Your task to perform on an android device: set the stopwatch Image 0: 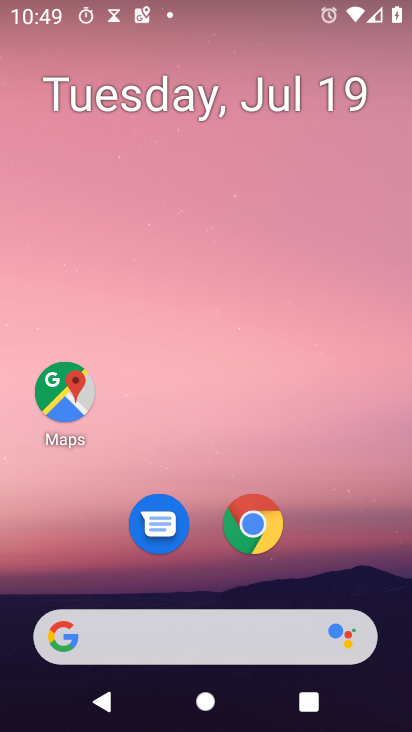
Step 0: drag from (241, 635) to (331, 104)
Your task to perform on an android device: set the stopwatch Image 1: 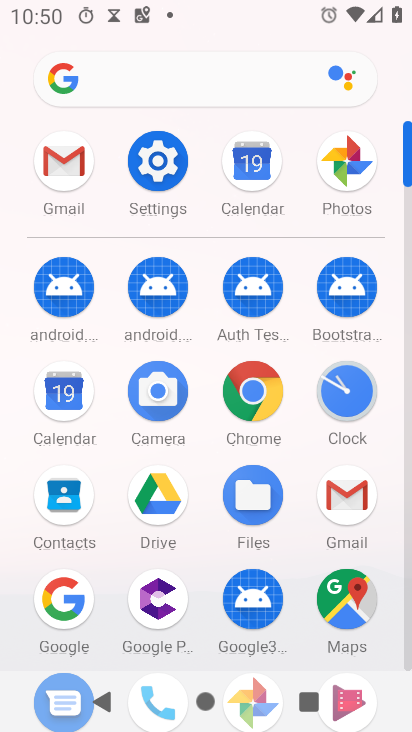
Step 1: click (344, 388)
Your task to perform on an android device: set the stopwatch Image 2: 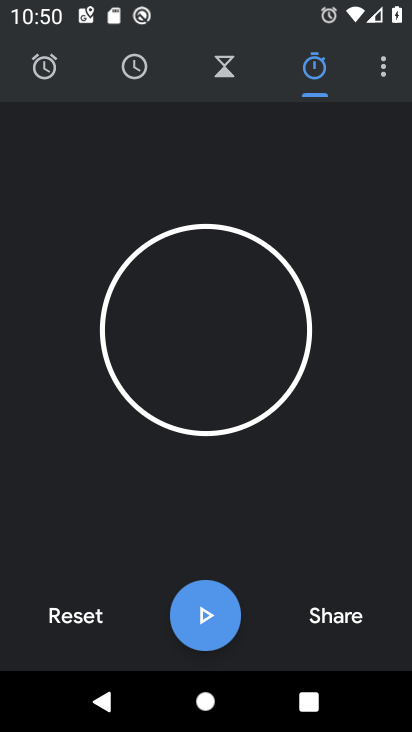
Step 2: click (81, 618)
Your task to perform on an android device: set the stopwatch Image 3: 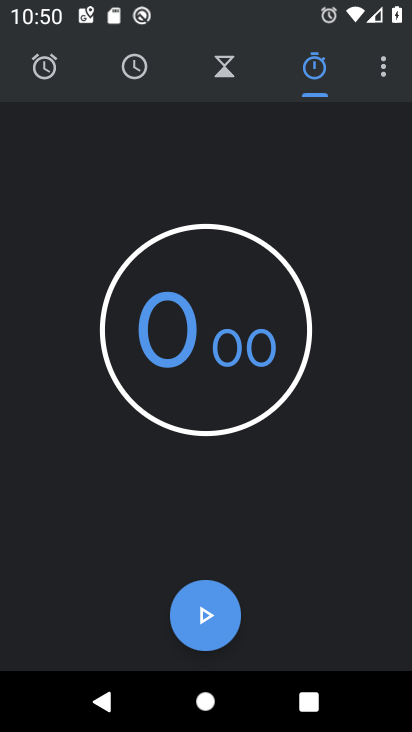
Step 3: click (191, 344)
Your task to perform on an android device: set the stopwatch Image 4: 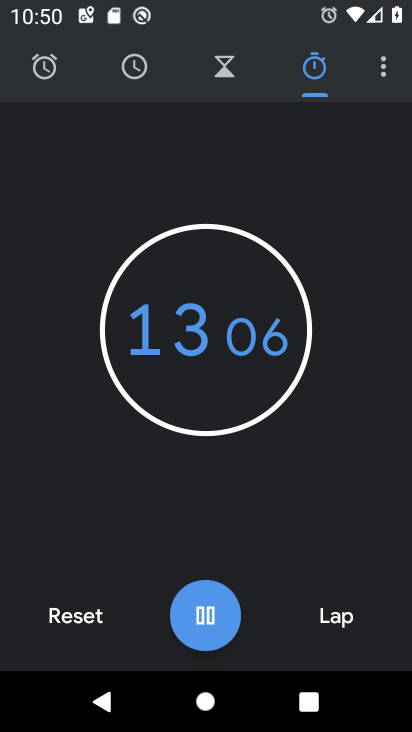
Step 4: click (105, 320)
Your task to perform on an android device: set the stopwatch Image 5: 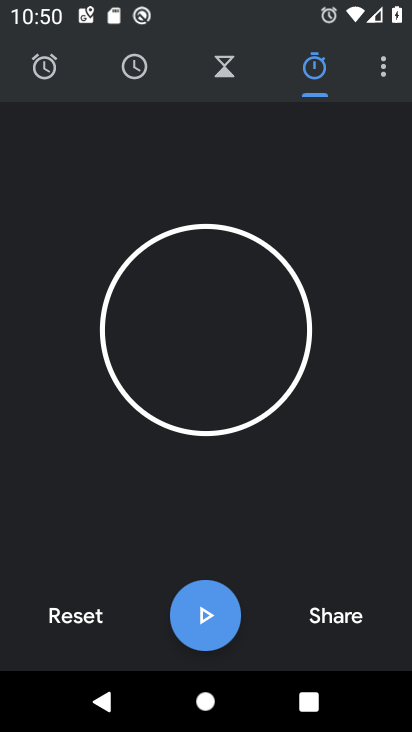
Step 5: task complete